Your task to perform on an android device: make emails show in primary in the gmail app Image 0: 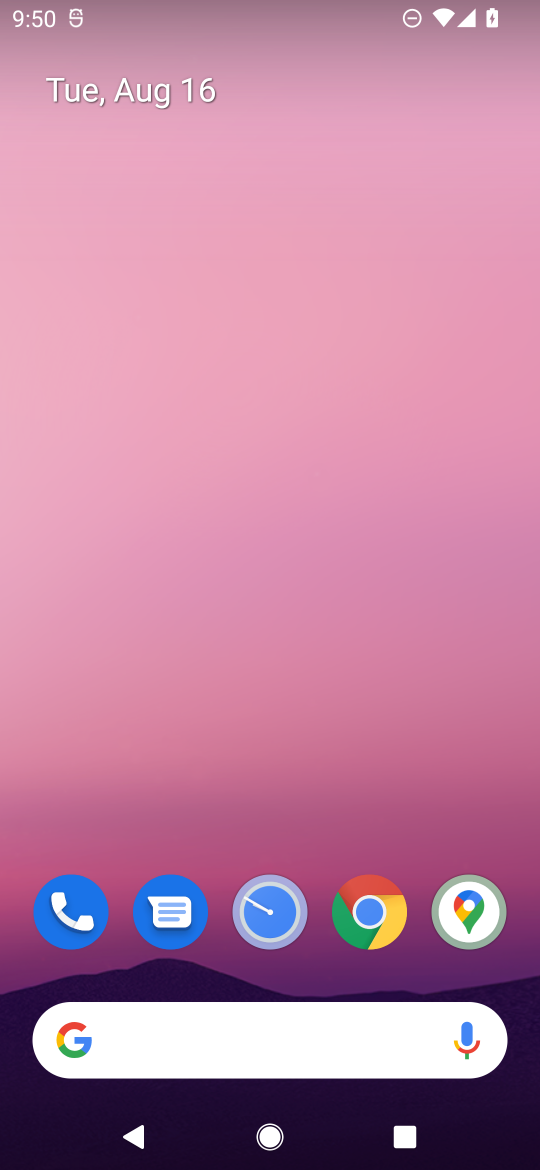
Step 0: drag from (226, 964) to (276, 188)
Your task to perform on an android device: make emails show in primary in the gmail app Image 1: 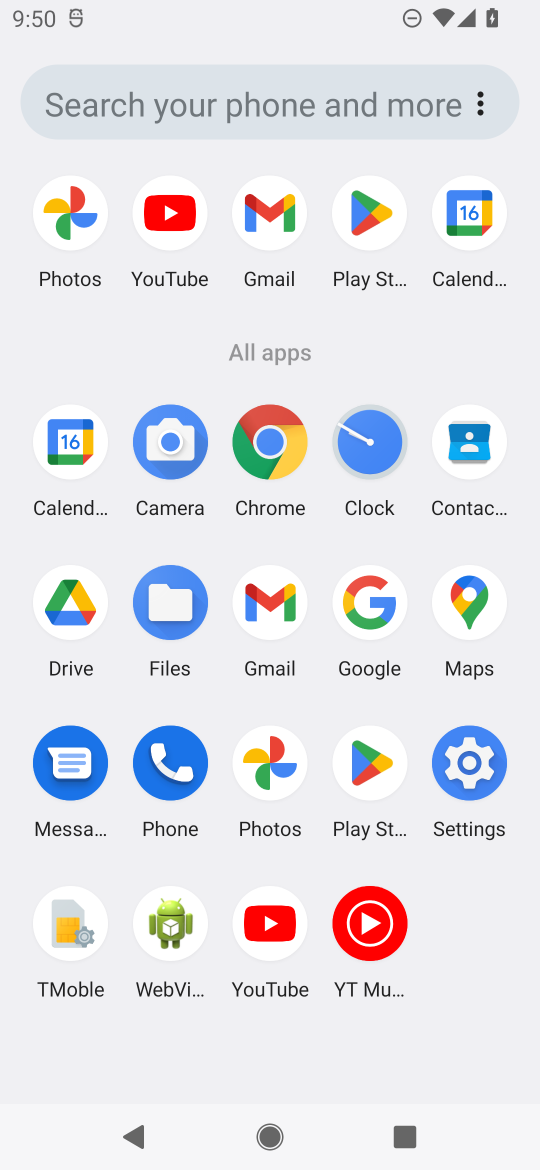
Step 1: click (273, 192)
Your task to perform on an android device: make emails show in primary in the gmail app Image 2: 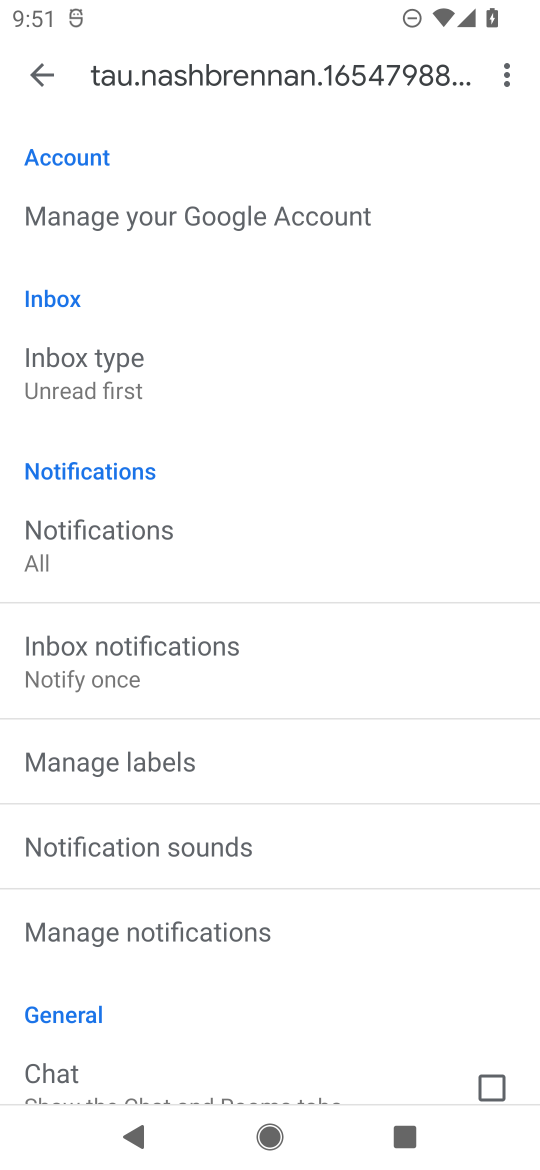
Step 2: click (30, 76)
Your task to perform on an android device: make emails show in primary in the gmail app Image 3: 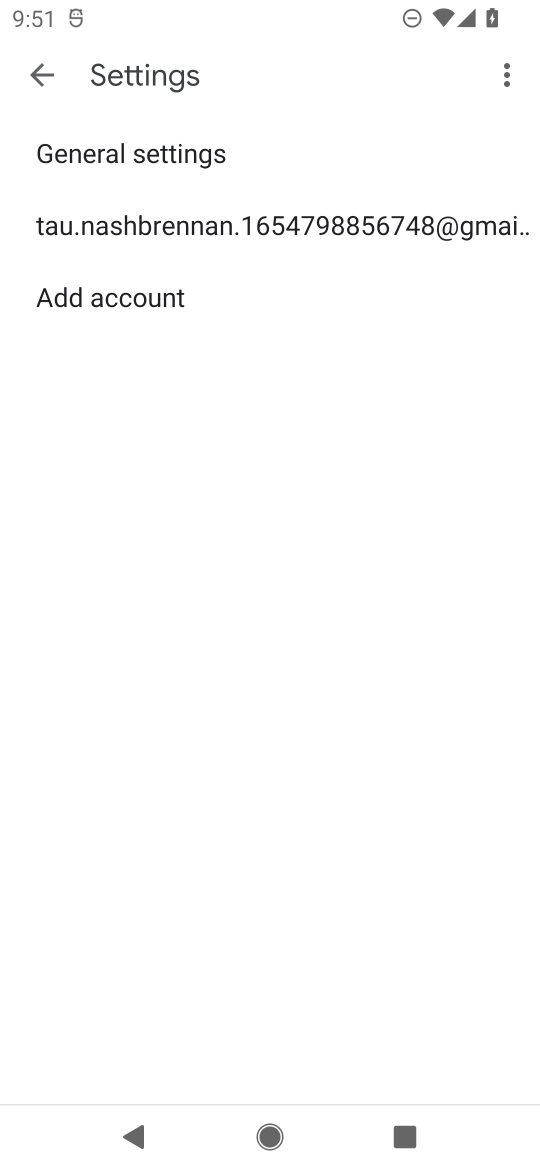
Step 3: click (30, 76)
Your task to perform on an android device: make emails show in primary in the gmail app Image 4: 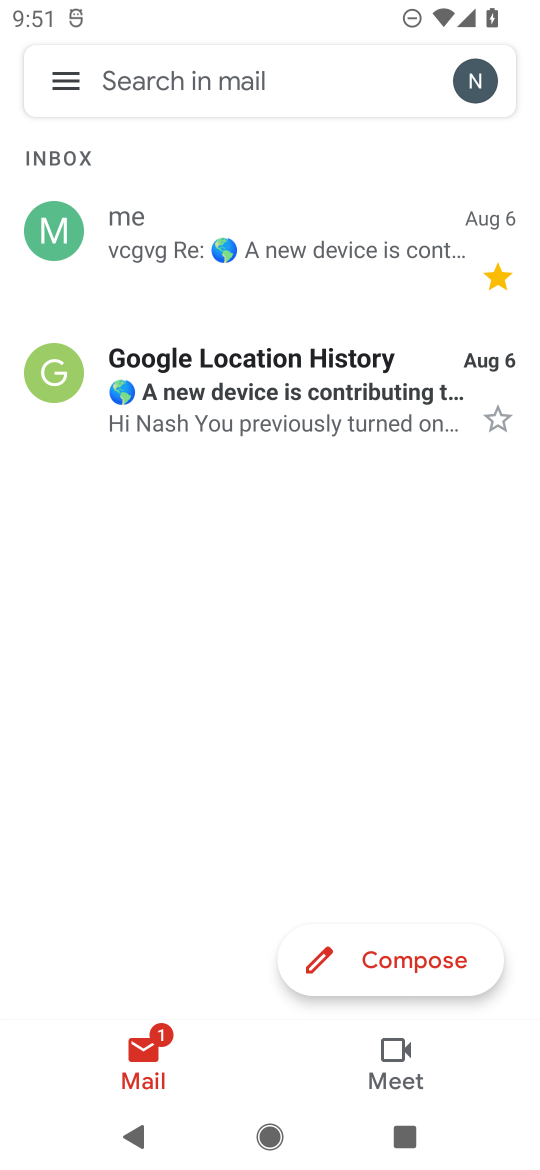
Step 4: click (60, 98)
Your task to perform on an android device: make emails show in primary in the gmail app Image 5: 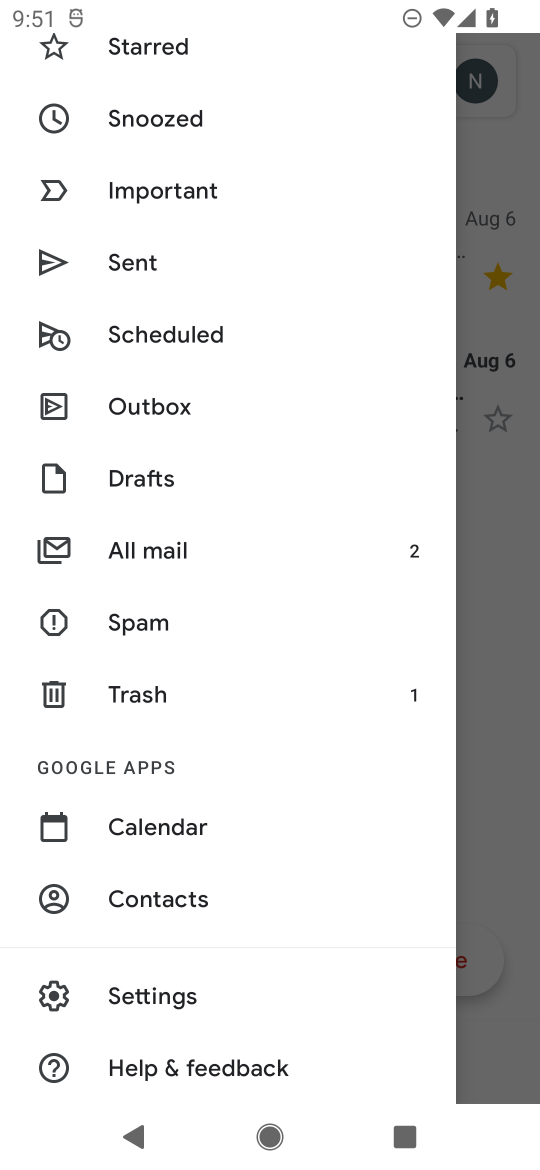
Step 5: task complete